Your task to perform on an android device: turn on the 24-hour format for clock Image 0: 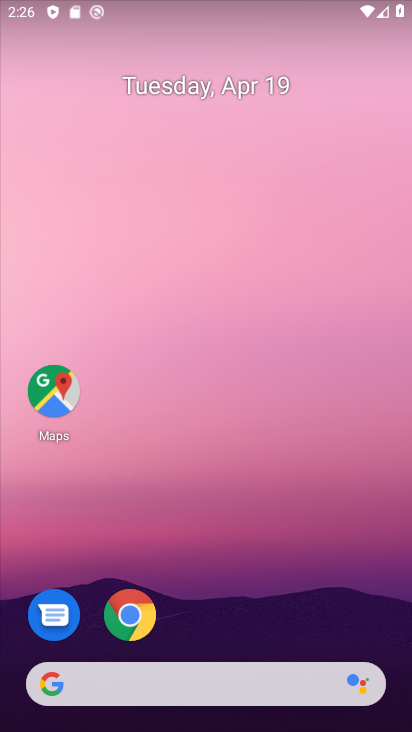
Step 0: drag from (242, 583) to (279, 204)
Your task to perform on an android device: turn on the 24-hour format for clock Image 1: 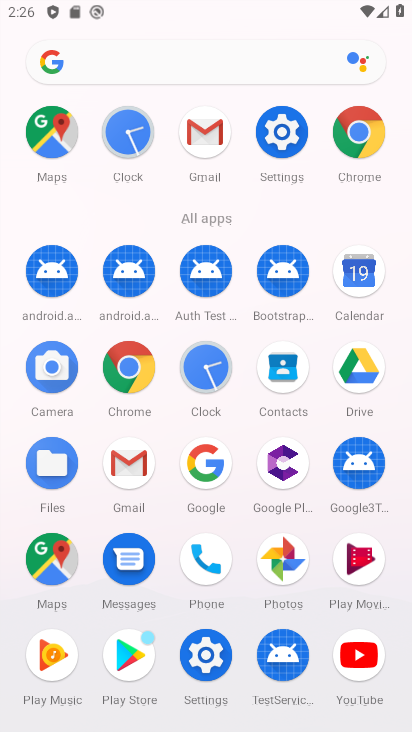
Step 1: click (201, 368)
Your task to perform on an android device: turn on the 24-hour format for clock Image 2: 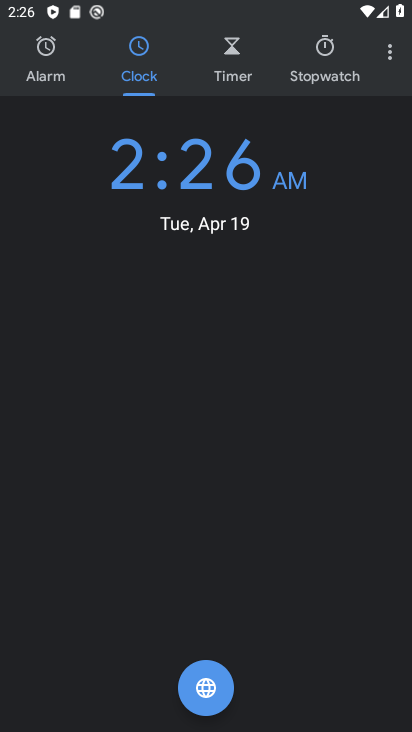
Step 2: click (391, 51)
Your task to perform on an android device: turn on the 24-hour format for clock Image 3: 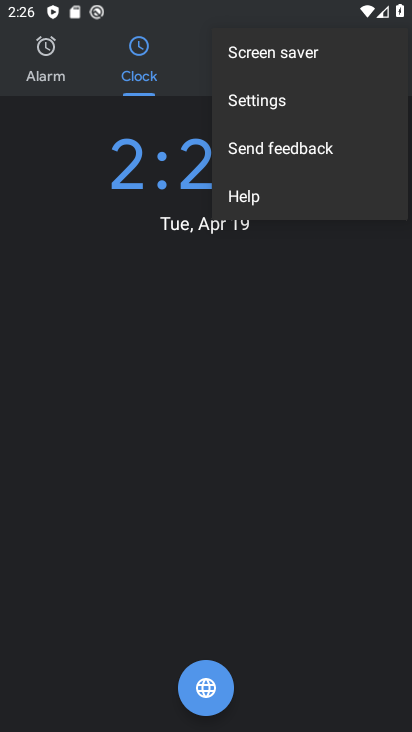
Step 3: click (311, 98)
Your task to perform on an android device: turn on the 24-hour format for clock Image 4: 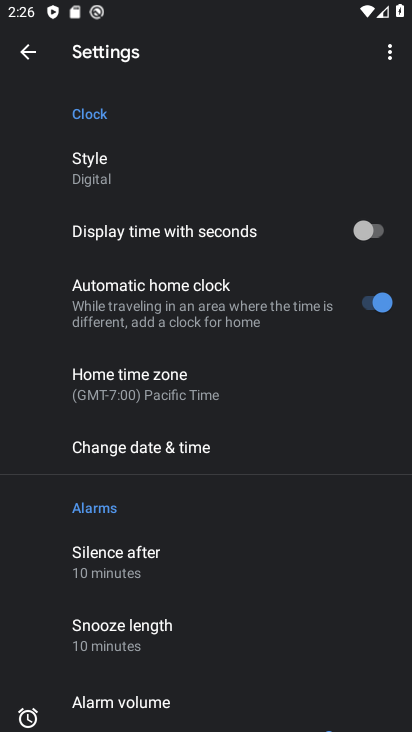
Step 4: click (147, 454)
Your task to perform on an android device: turn on the 24-hour format for clock Image 5: 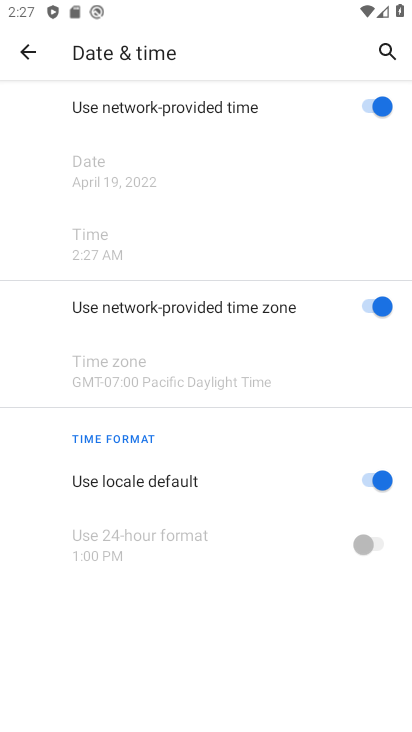
Step 5: click (369, 477)
Your task to perform on an android device: turn on the 24-hour format for clock Image 6: 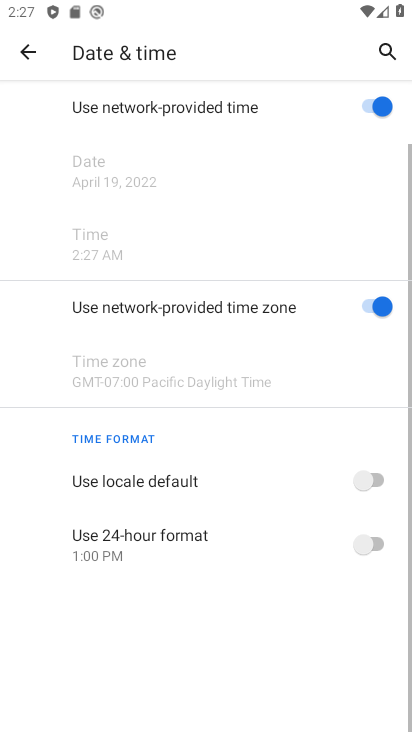
Step 6: click (366, 539)
Your task to perform on an android device: turn on the 24-hour format for clock Image 7: 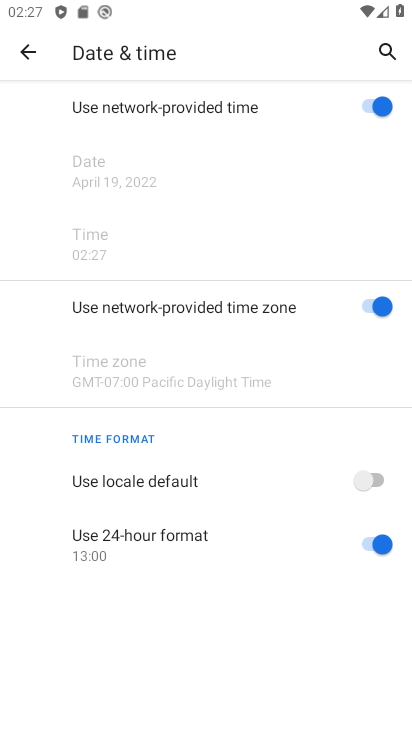
Step 7: task complete